Your task to perform on an android device: manage bookmarks in the chrome app Image 0: 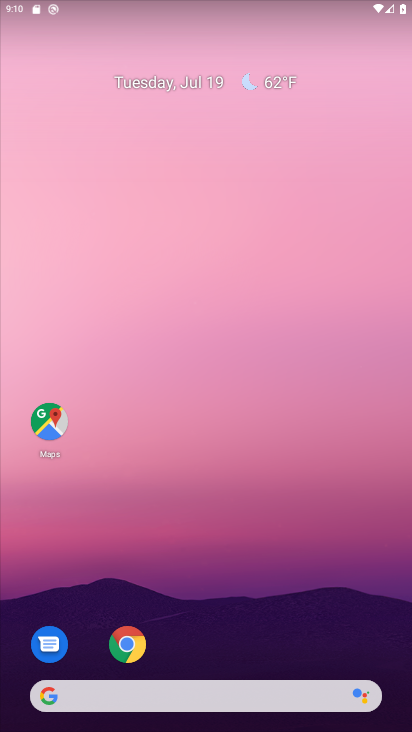
Step 0: click (116, 658)
Your task to perform on an android device: manage bookmarks in the chrome app Image 1: 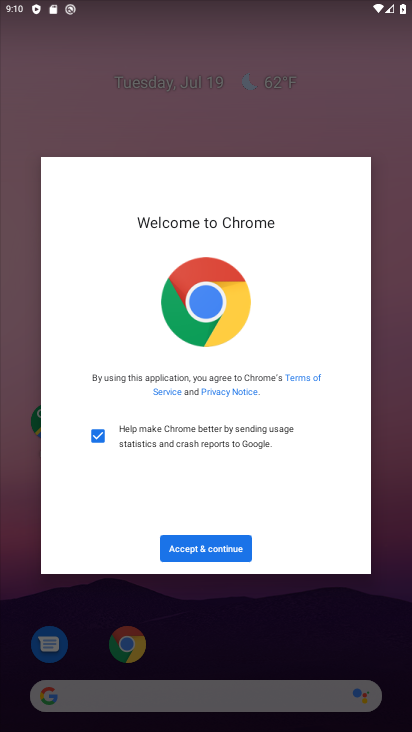
Step 1: click (206, 536)
Your task to perform on an android device: manage bookmarks in the chrome app Image 2: 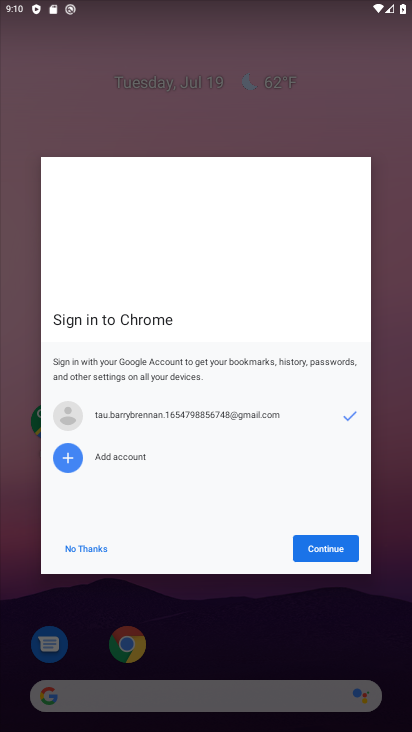
Step 2: click (324, 541)
Your task to perform on an android device: manage bookmarks in the chrome app Image 3: 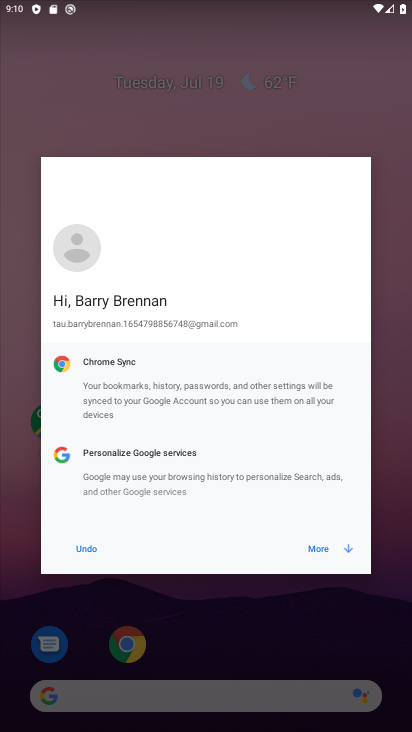
Step 3: click (333, 549)
Your task to perform on an android device: manage bookmarks in the chrome app Image 4: 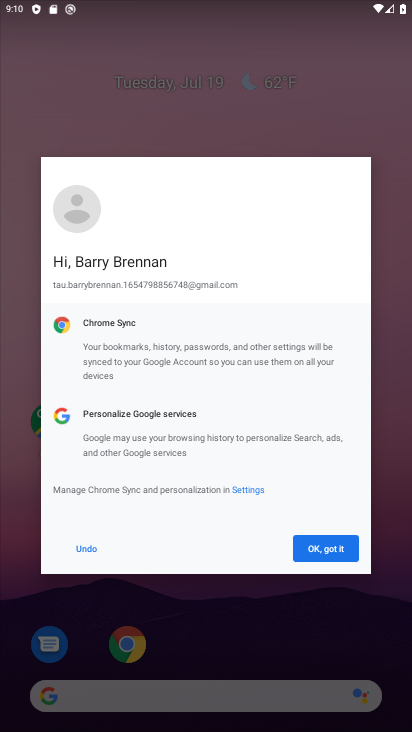
Step 4: click (333, 549)
Your task to perform on an android device: manage bookmarks in the chrome app Image 5: 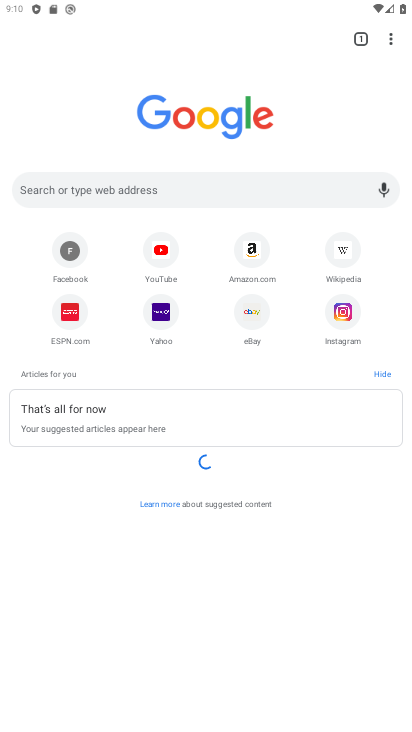
Step 5: drag from (389, 41) to (359, 149)
Your task to perform on an android device: manage bookmarks in the chrome app Image 6: 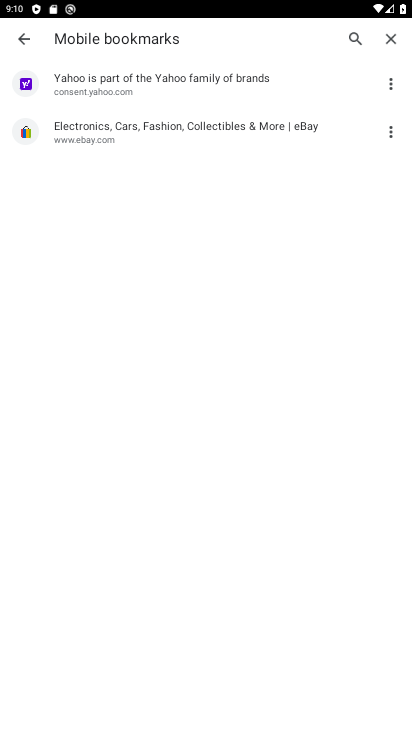
Step 6: click (253, 69)
Your task to perform on an android device: manage bookmarks in the chrome app Image 7: 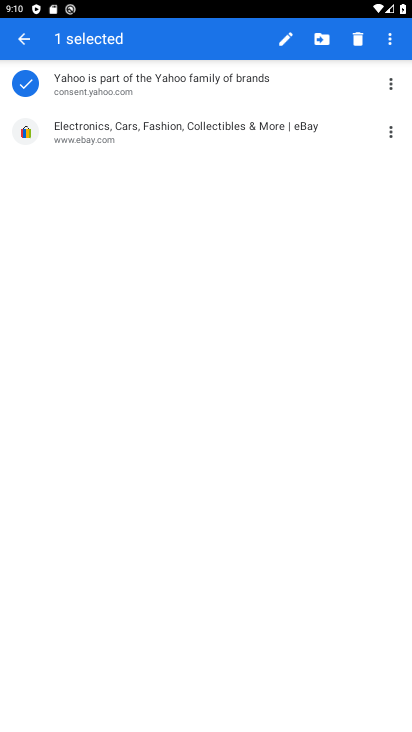
Step 7: click (255, 102)
Your task to perform on an android device: manage bookmarks in the chrome app Image 8: 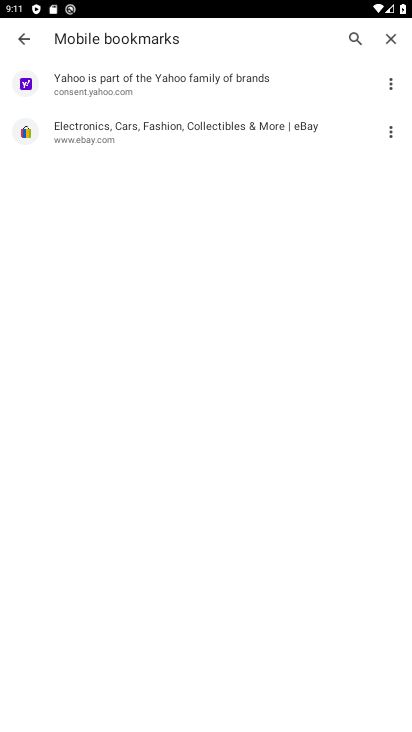
Step 8: click (254, 101)
Your task to perform on an android device: manage bookmarks in the chrome app Image 9: 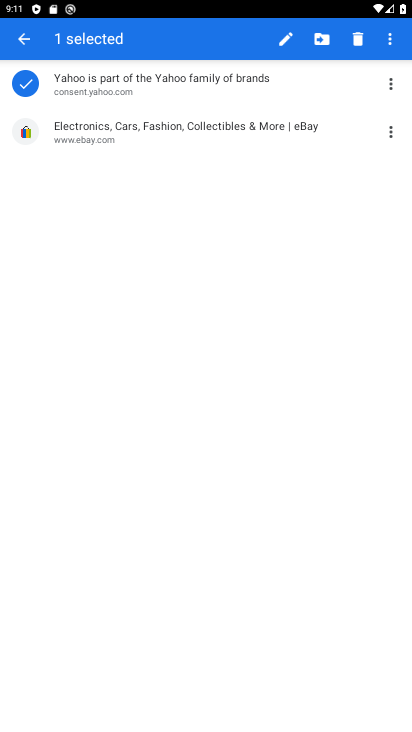
Step 9: click (254, 139)
Your task to perform on an android device: manage bookmarks in the chrome app Image 10: 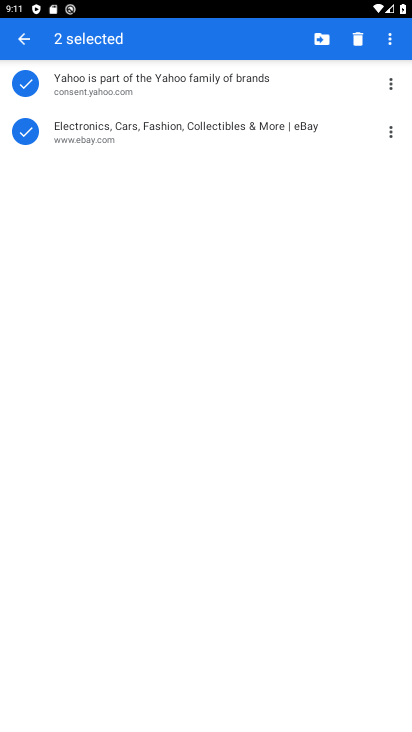
Step 10: click (319, 43)
Your task to perform on an android device: manage bookmarks in the chrome app Image 11: 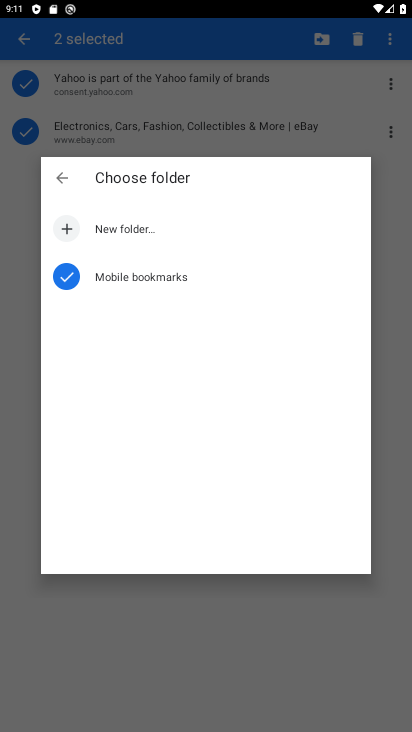
Step 11: click (229, 247)
Your task to perform on an android device: manage bookmarks in the chrome app Image 12: 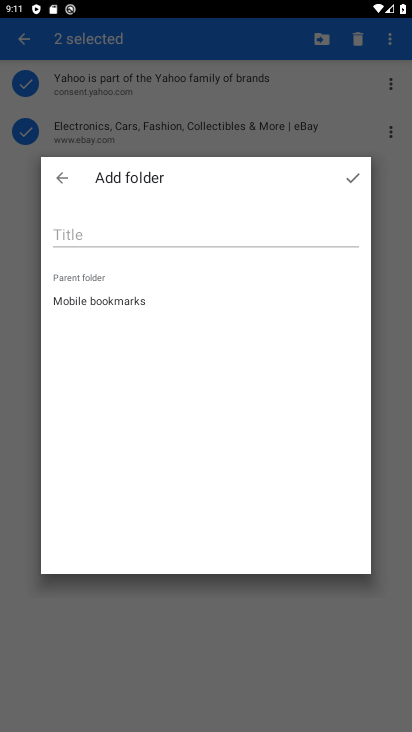
Step 12: click (251, 233)
Your task to perform on an android device: manage bookmarks in the chrome app Image 13: 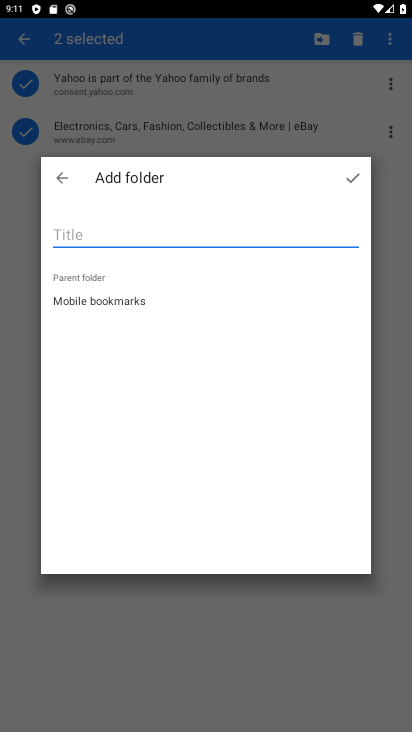
Step 13: click (252, 232)
Your task to perform on an android device: manage bookmarks in the chrome app Image 14: 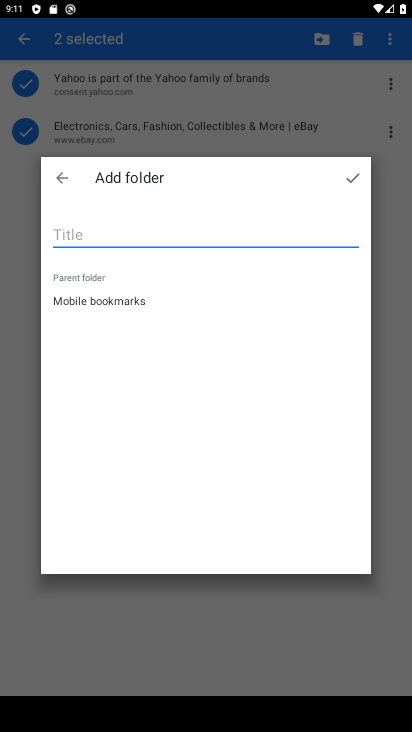
Step 14: type "nn"
Your task to perform on an android device: manage bookmarks in the chrome app Image 15: 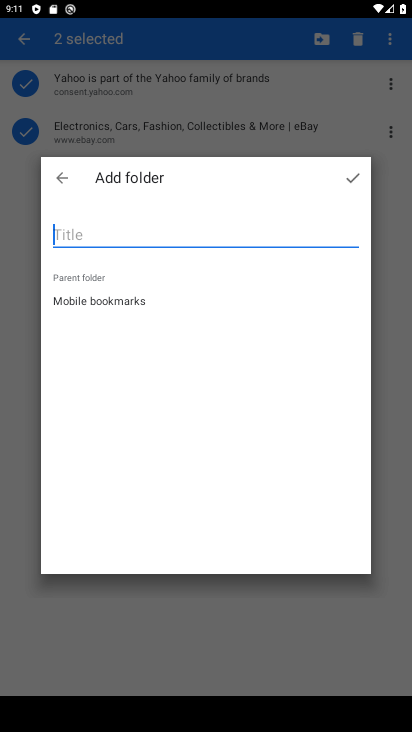
Step 15: click (363, 175)
Your task to perform on an android device: manage bookmarks in the chrome app Image 16: 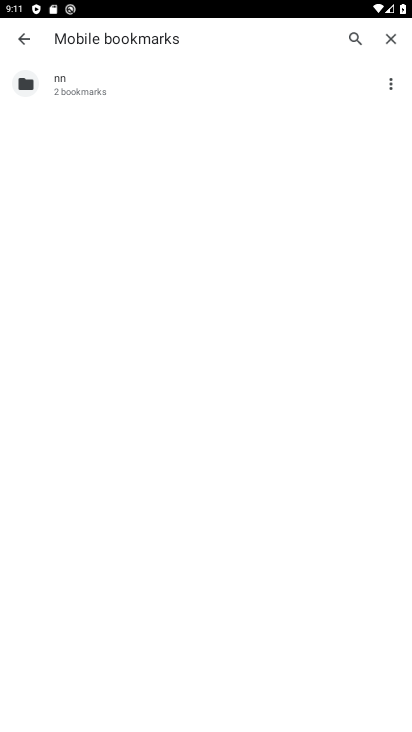
Step 16: task complete